Your task to perform on an android device: What is the recent news? Image 0: 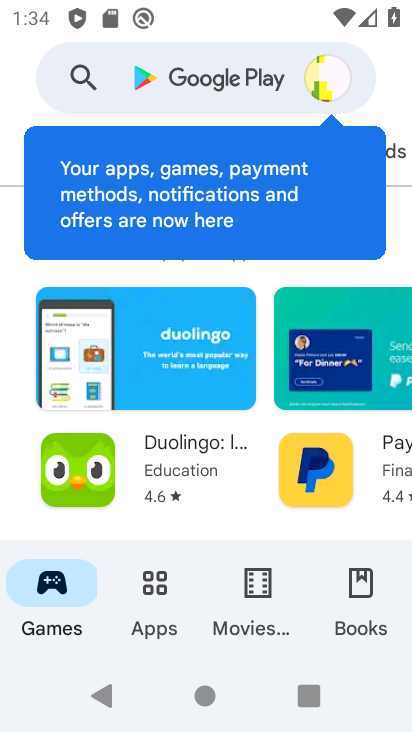
Step 0: press back button
Your task to perform on an android device: What is the recent news? Image 1: 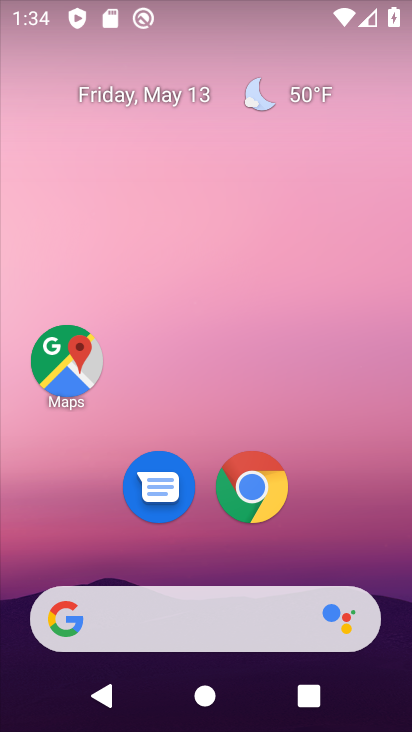
Step 1: task complete